Your task to perform on an android device: delete location history Image 0: 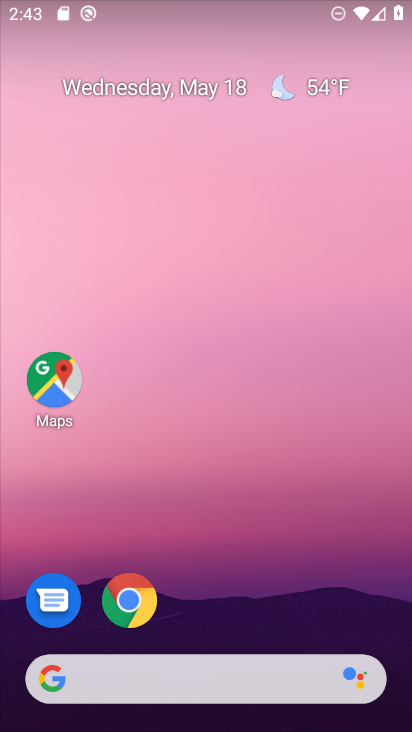
Step 0: drag from (208, 601) to (232, 4)
Your task to perform on an android device: delete location history Image 1: 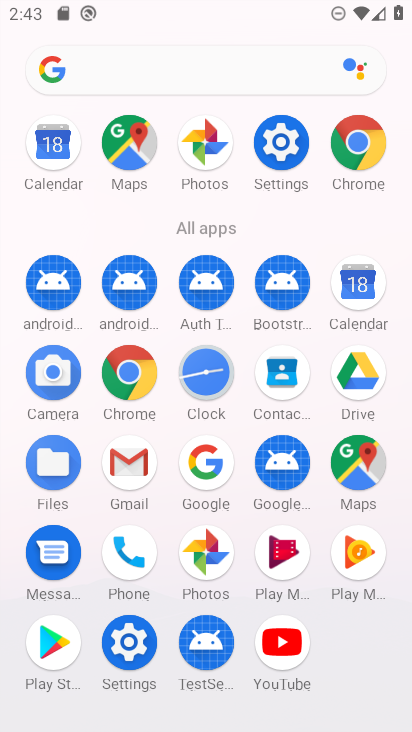
Step 1: click (356, 455)
Your task to perform on an android device: delete location history Image 2: 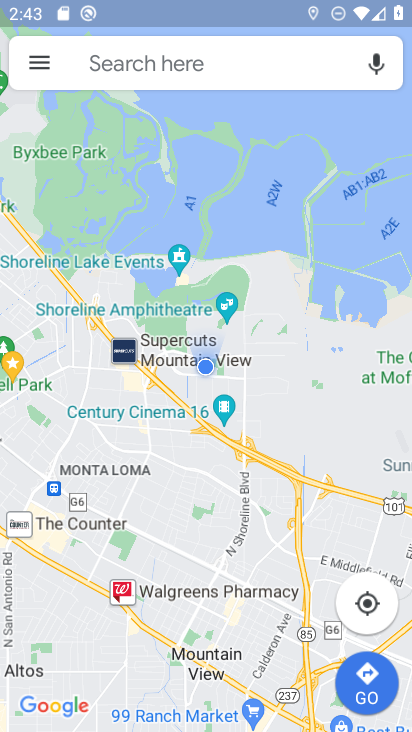
Step 2: click (40, 66)
Your task to perform on an android device: delete location history Image 3: 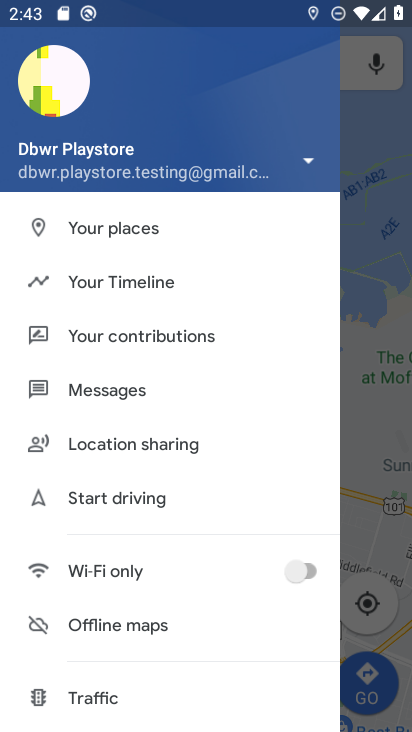
Step 3: click (164, 287)
Your task to perform on an android device: delete location history Image 4: 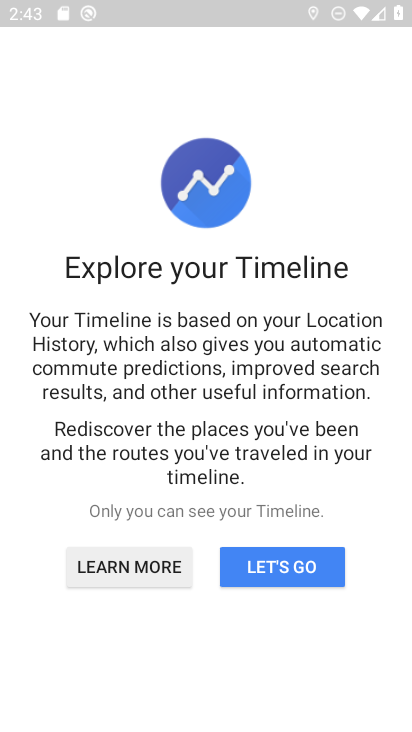
Step 4: click (256, 561)
Your task to perform on an android device: delete location history Image 5: 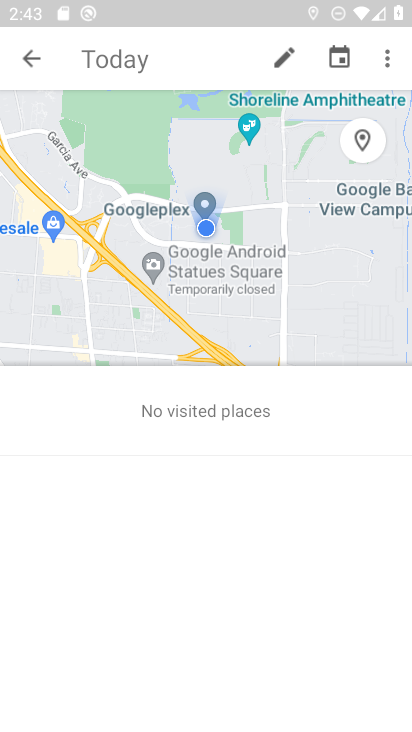
Step 5: click (391, 58)
Your task to perform on an android device: delete location history Image 6: 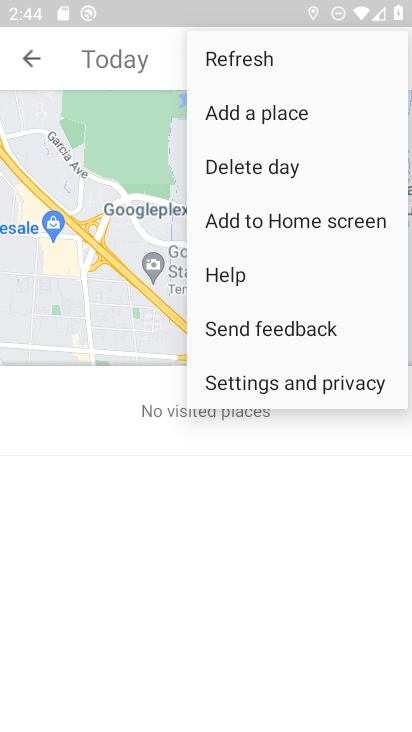
Step 6: click (272, 387)
Your task to perform on an android device: delete location history Image 7: 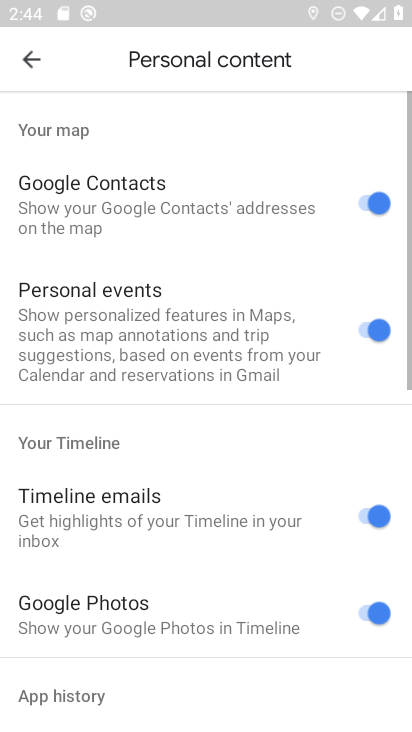
Step 7: drag from (147, 518) to (219, 158)
Your task to perform on an android device: delete location history Image 8: 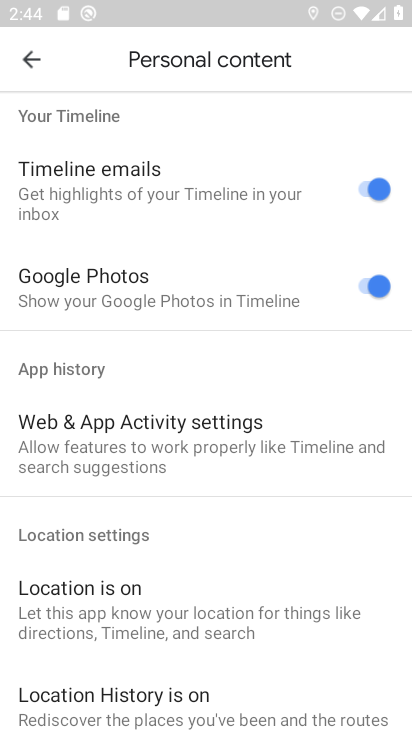
Step 8: drag from (151, 574) to (250, 257)
Your task to perform on an android device: delete location history Image 9: 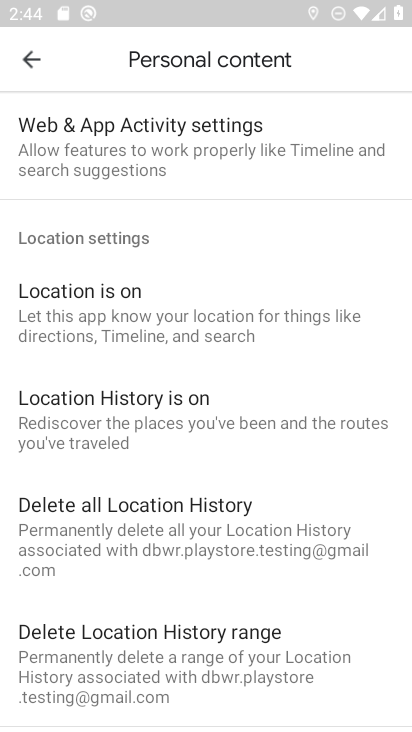
Step 9: click (196, 532)
Your task to perform on an android device: delete location history Image 10: 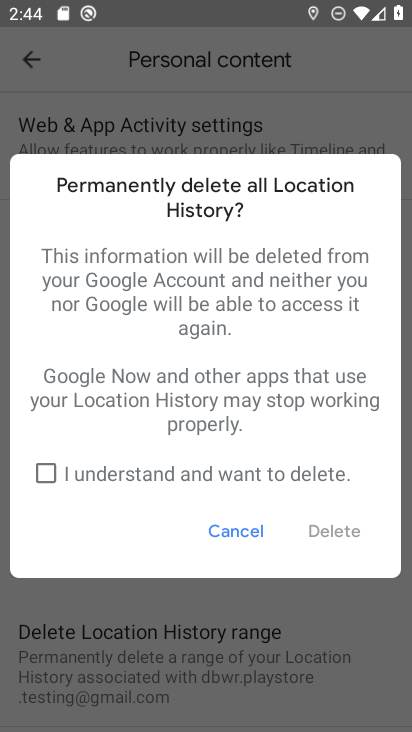
Step 10: click (126, 465)
Your task to perform on an android device: delete location history Image 11: 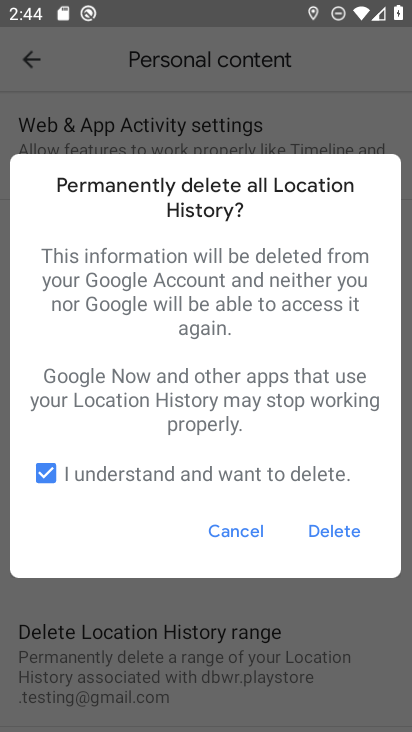
Step 11: click (317, 530)
Your task to perform on an android device: delete location history Image 12: 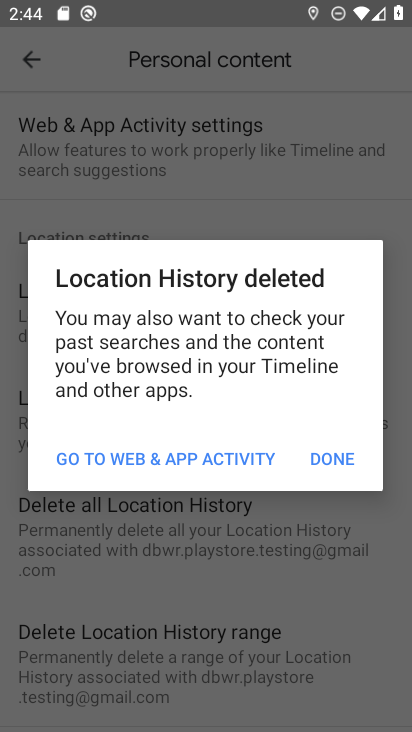
Step 12: click (344, 457)
Your task to perform on an android device: delete location history Image 13: 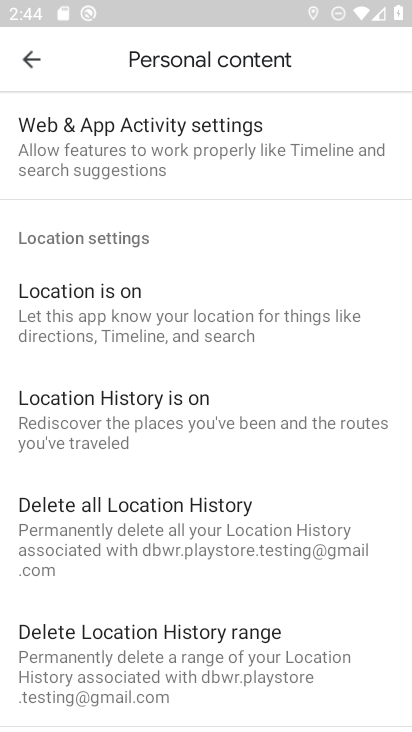
Step 13: task complete